Your task to perform on an android device: set default search engine in the chrome app Image 0: 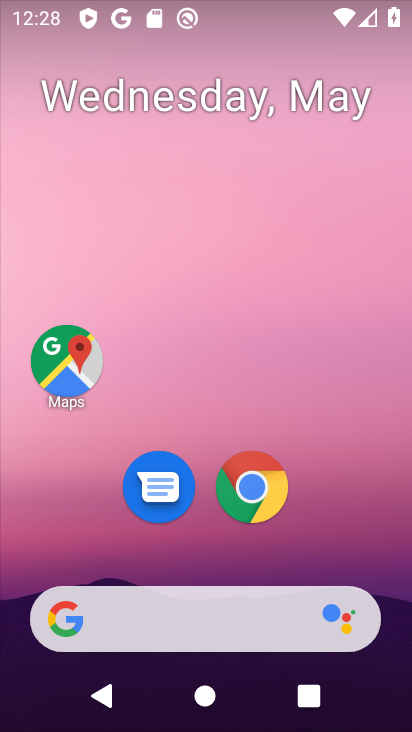
Step 0: click (268, 483)
Your task to perform on an android device: set default search engine in the chrome app Image 1: 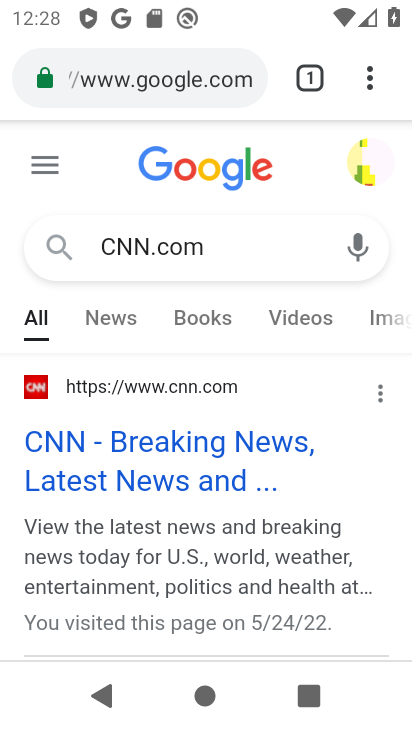
Step 1: click (374, 76)
Your task to perform on an android device: set default search engine in the chrome app Image 2: 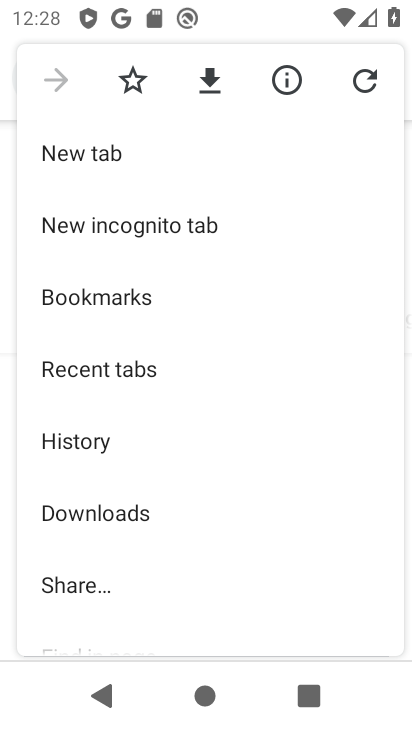
Step 2: drag from (88, 532) to (147, 312)
Your task to perform on an android device: set default search engine in the chrome app Image 3: 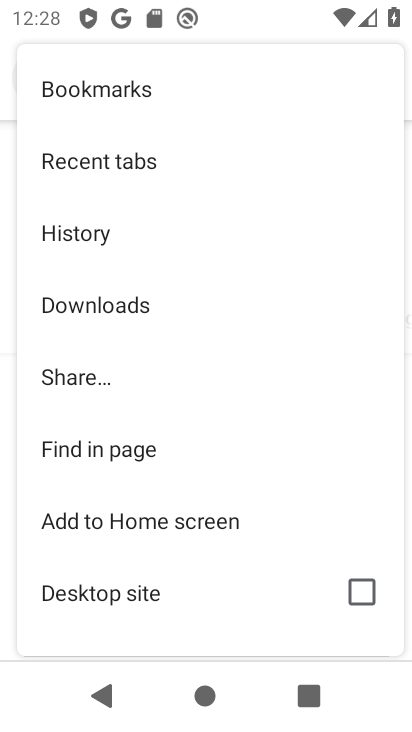
Step 3: drag from (129, 563) to (237, 145)
Your task to perform on an android device: set default search engine in the chrome app Image 4: 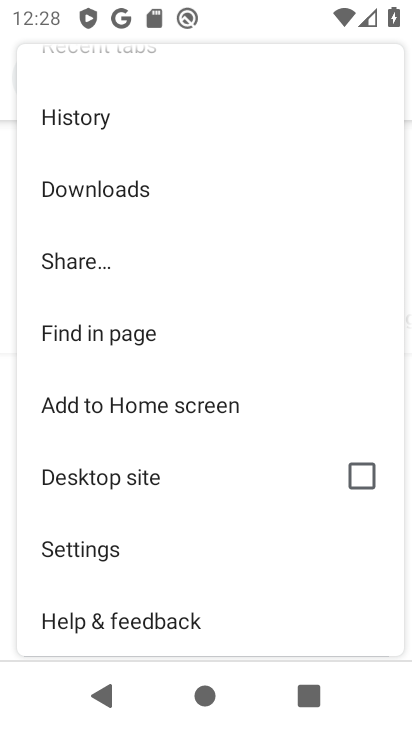
Step 4: click (119, 552)
Your task to perform on an android device: set default search engine in the chrome app Image 5: 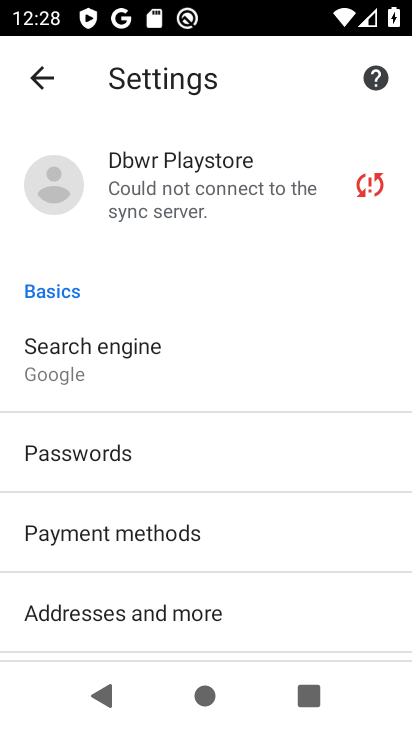
Step 5: click (97, 362)
Your task to perform on an android device: set default search engine in the chrome app Image 6: 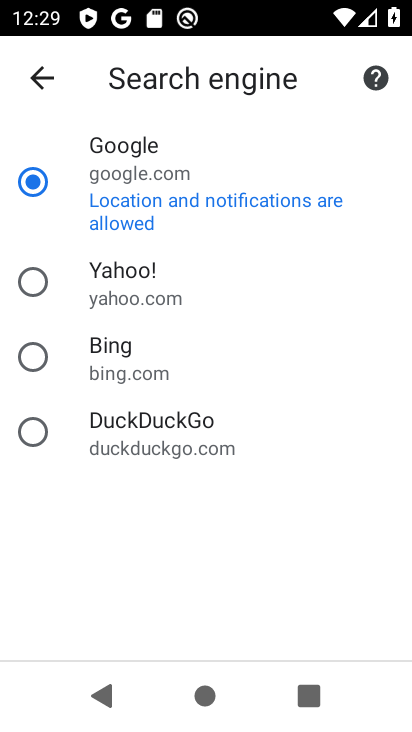
Step 6: click (206, 209)
Your task to perform on an android device: set default search engine in the chrome app Image 7: 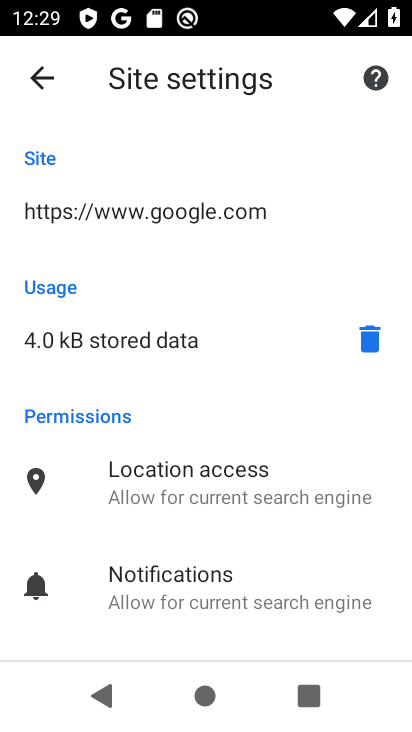
Step 7: drag from (257, 495) to (274, 218)
Your task to perform on an android device: set default search engine in the chrome app Image 8: 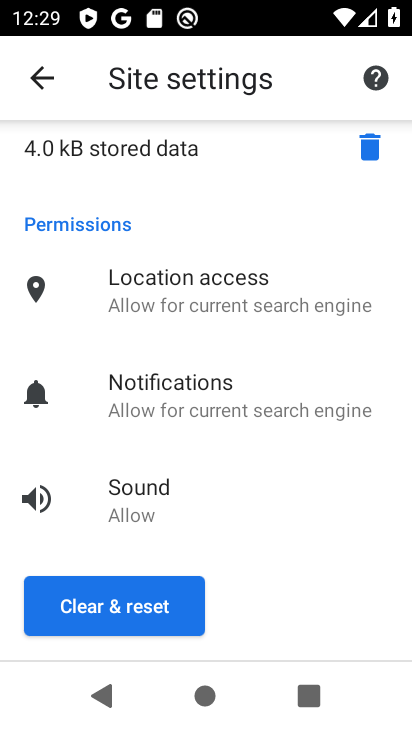
Step 8: drag from (226, 613) to (291, 182)
Your task to perform on an android device: set default search engine in the chrome app Image 9: 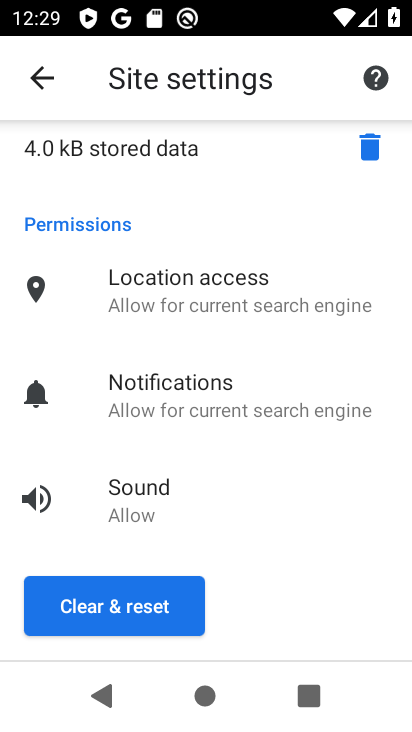
Step 9: drag from (188, 605) to (268, 71)
Your task to perform on an android device: set default search engine in the chrome app Image 10: 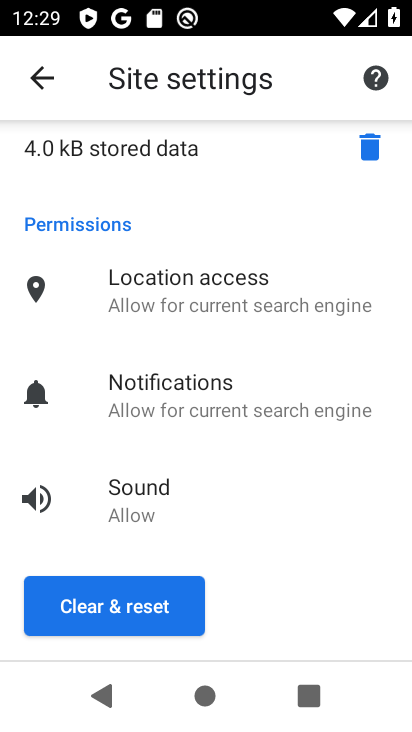
Step 10: click (117, 619)
Your task to perform on an android device: set default search engine in the chrome app Image 11: 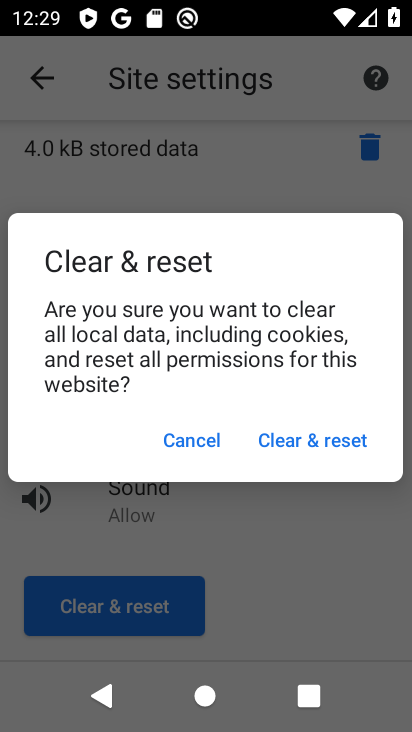
Step 11: click (284, 436)
Your task to perform on an android device: set default search engine in the chrome app Image 12: 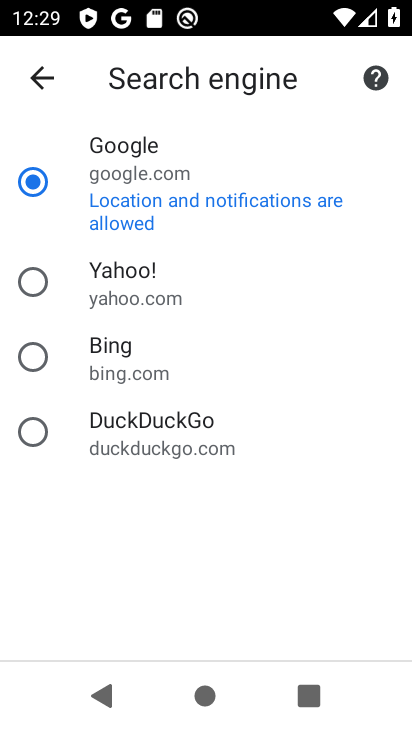
Step 12: task complete